Your task to perform on an android device: turn on location history Image 0: 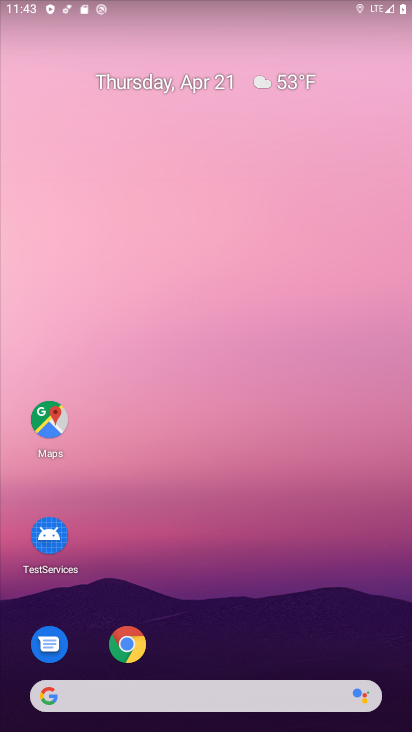
Step 0: drag from (290, 446) to (282, 75)
Your task to perform on an android device: turn on location history Image 1: 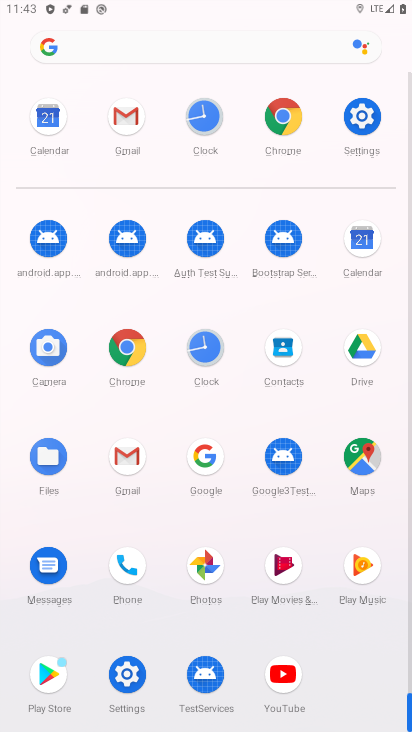
Step 1: click (127, 679)
Your task to perform on an android device: turn on location history Image 2: 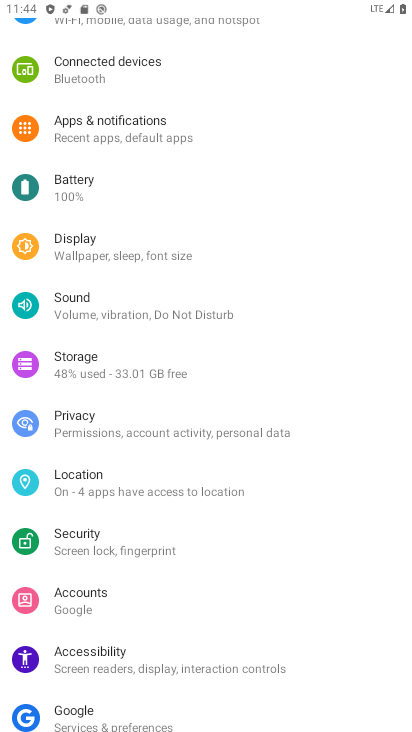
Step 2: click (128, 484)
Your task to perform on an android device: turn on location history Image 3: 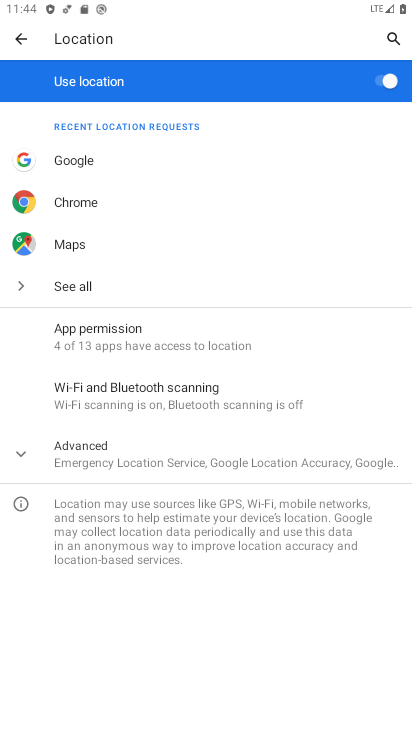
Step 3: click (87, 444)
Your task to perform on an android device: turn on location history Image 4: 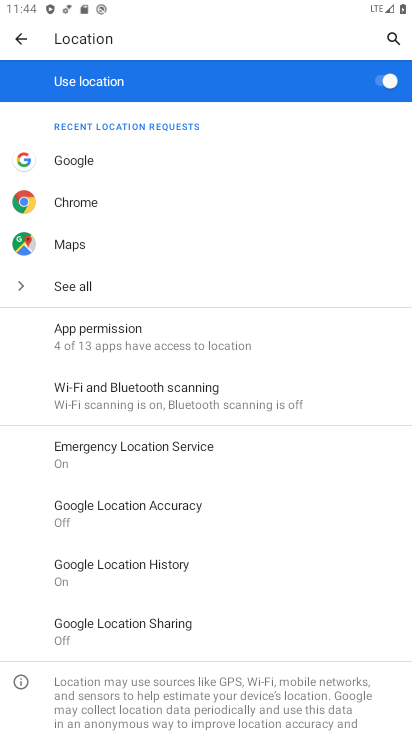
Step 4: click (156, 565)
Your task to perform on an android device: turn on location history Image 5: 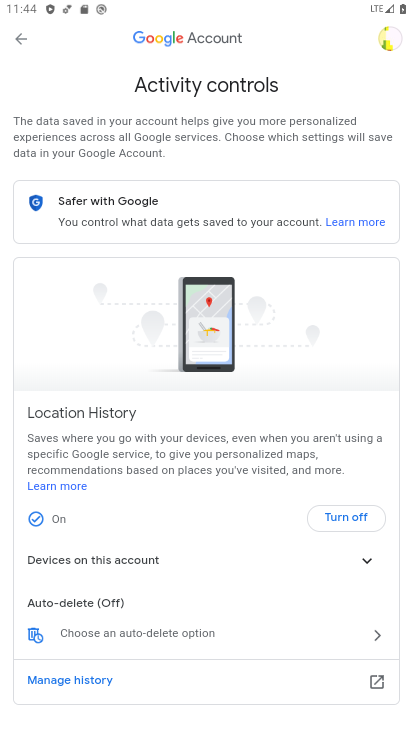
Step 5: task complete